Your task to perform on an android device: turn notification dots off Image 0: 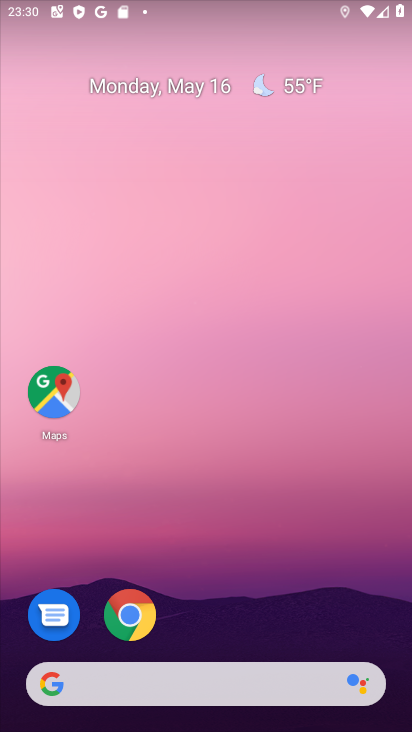
Step 0: drag from (205, 641) to (242, 8)
Your task to perform on an android device: turn notification dots off Image 1: 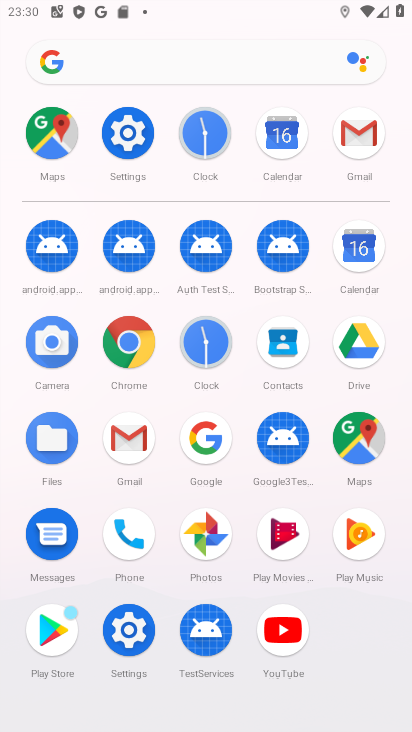
Step 1: click (113, 142)
Your task to perform on an android device: turn notification dots off Image 2: 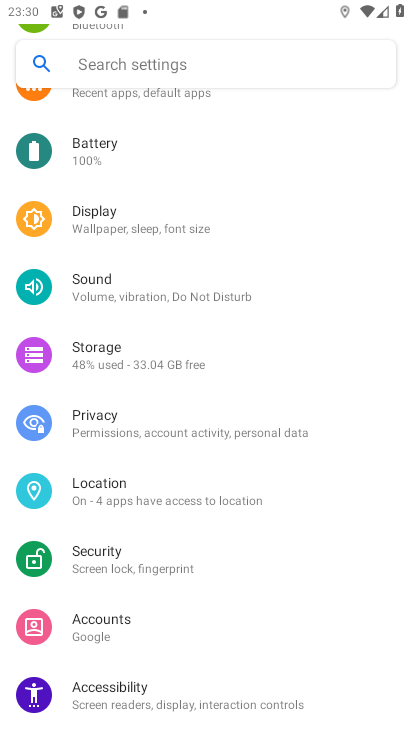
Step 2: drag from (152, 167) to (183, 517)
Your task to perform on an android device: turn notification dots off Image 3: 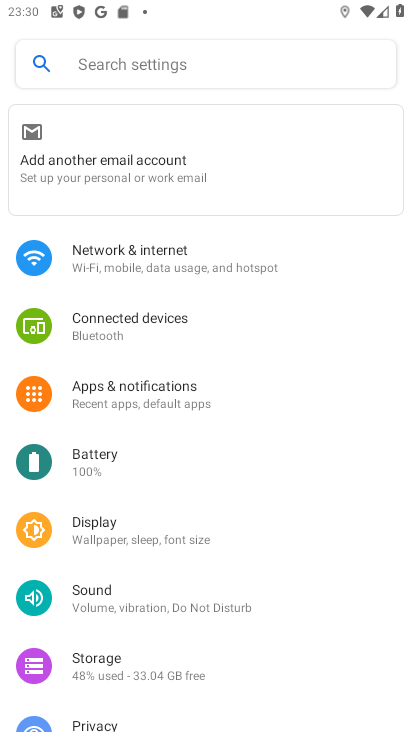
Step 3: click (141, 382)
Your task to perform on an android device: turn notification dots off Image 4: 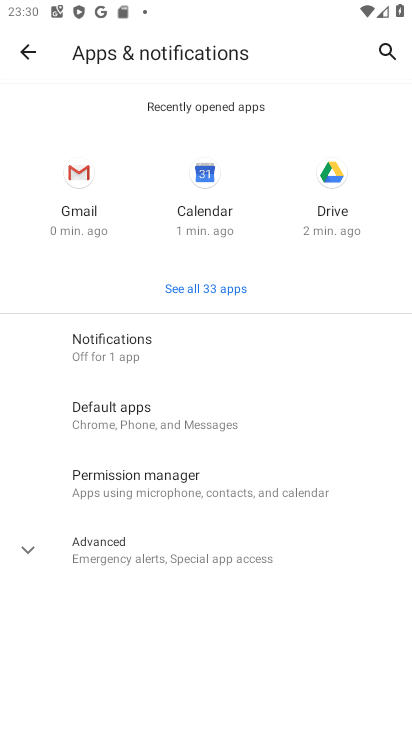
Step 4: click (157, 344)
Your task to perform on an android device: turn notification dots off Image 5: 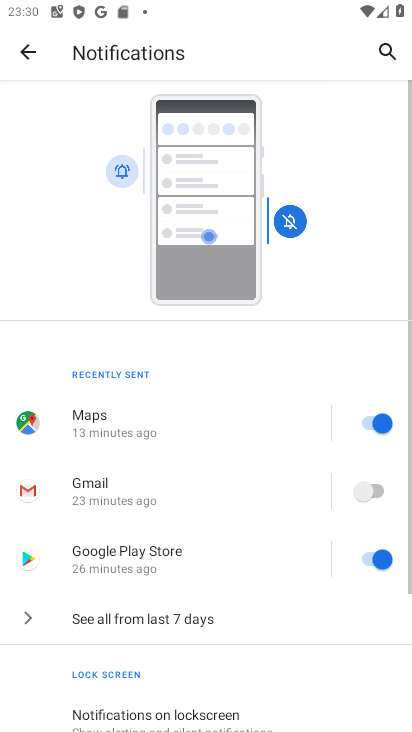
Step 5: drag from (231, 601) to (211, 104)
Your task to perform on an android device: turn notification dots off Image 6: 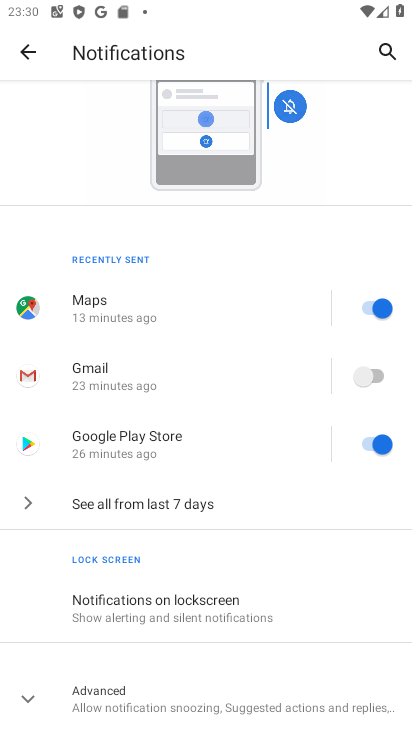
Step 6: click (152, 692)
Your task to perform on an android device: turn notification dots off Image 7: 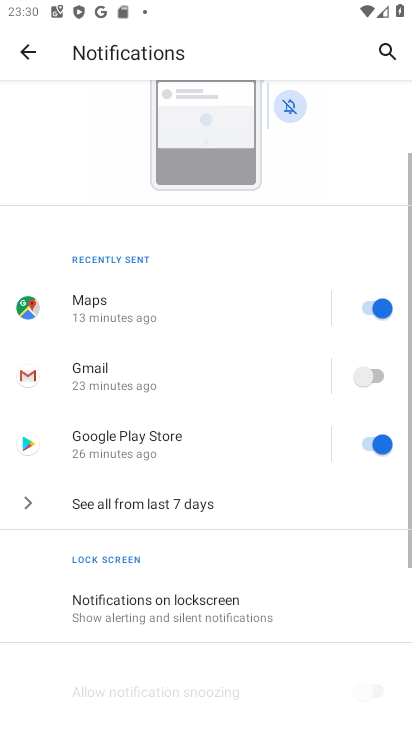
Step 7: drag from (152, 690) to (114, 185)
Your task to perform on an android device: turn notification dots off Image 8: 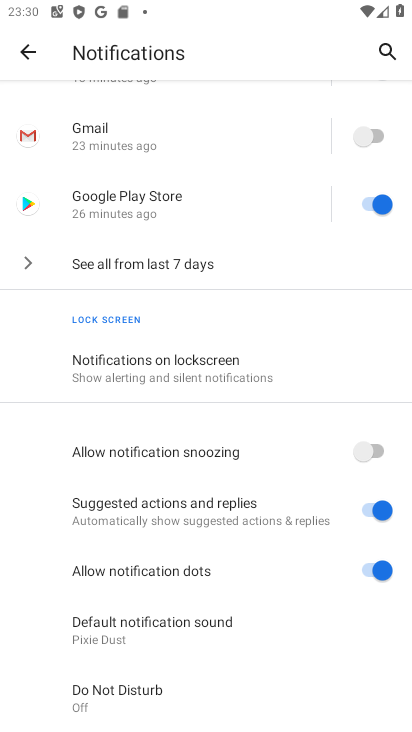
Step 8: click (372, 572)
Your task to perform on an android device: turn notification dots off Image 9: 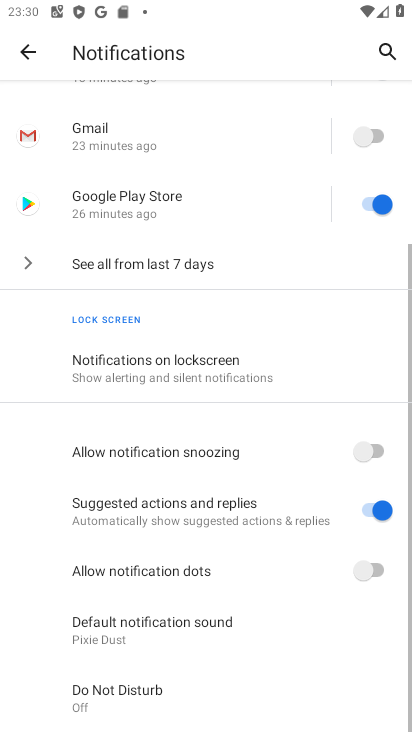
Step 9: task complete